Your task to perform on an android device: turn off translation in the chrome app Image 0: 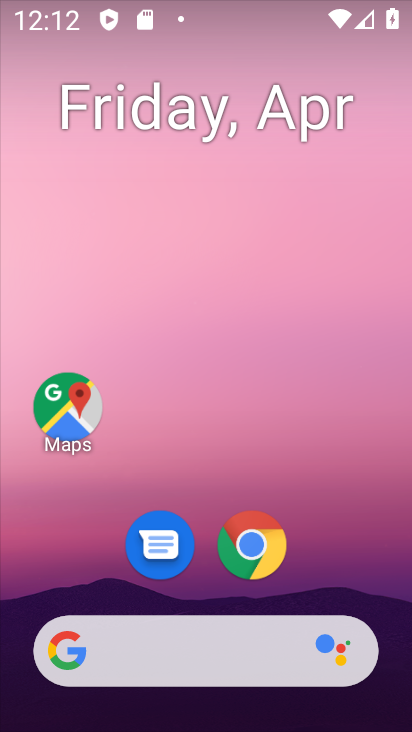
Step 0: click (267, 556)
Your task to perform on an android device: turn off translation in the chrome app Image 1: 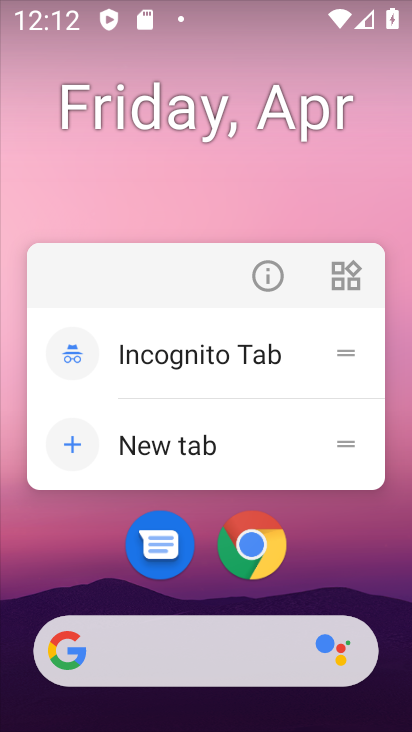
Step 1: click (264, 559)
Your task to perform on an android device: turn off translation in the chrome app Image 2: 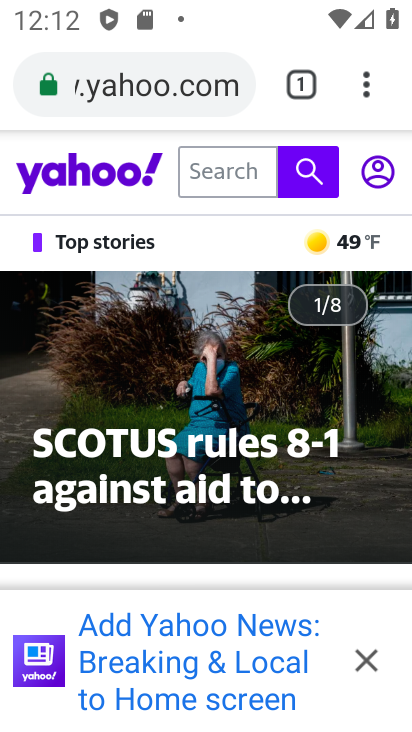
Step 2: click (362, 83)
Your task to perform on an android device: turn off translation in the chrome app Image 3: 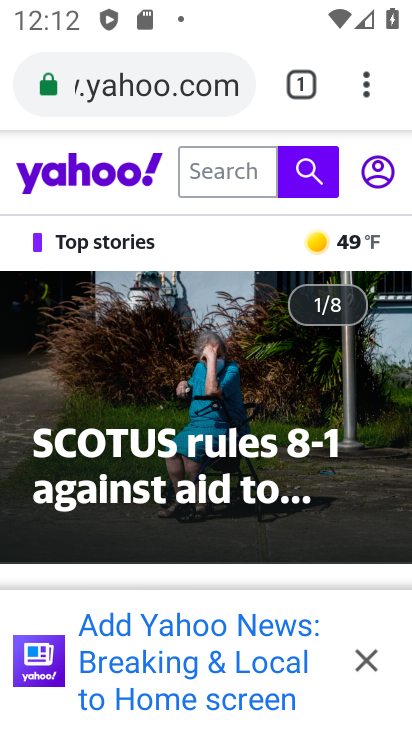
Step 3: click (365, 79)
Your task to perform on an android device: turn off translation in the chrome app Image 4: 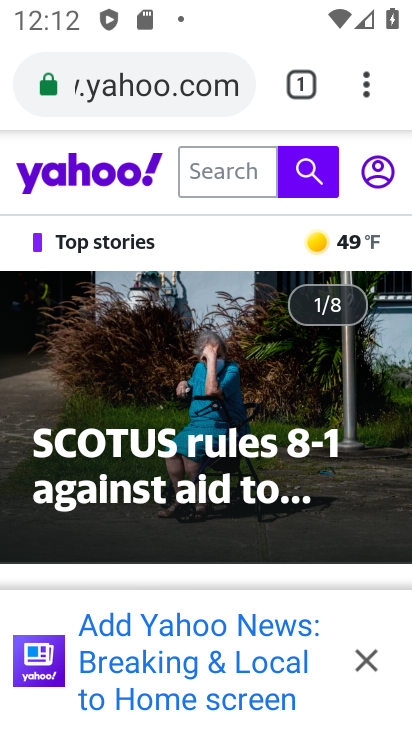
Step 4: click (368, 81)
Your task to perform on an android device: turn off translation in the chrome app Image 5: 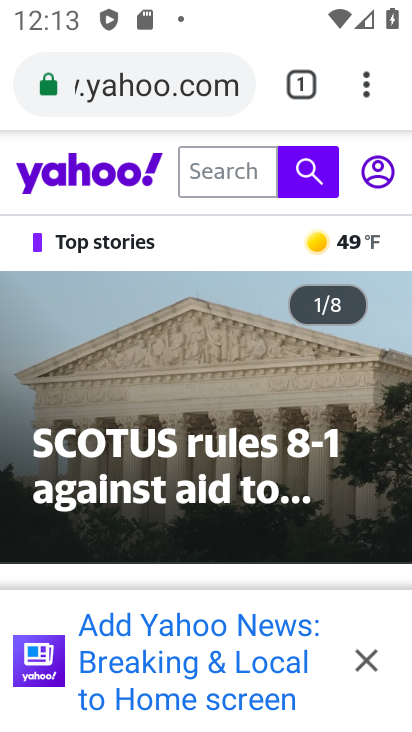
Step 5: click (366, 82)
Your task to perform on an android device: turn off translation in the chrome app Image 6: 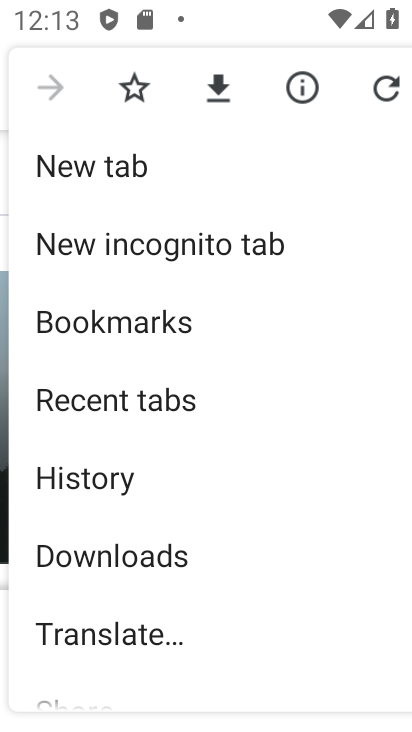
Step 6: drag from (138, 604) to (115, 214)
Your task to perform on an android device: turn off translation in the chrome app Image 7: 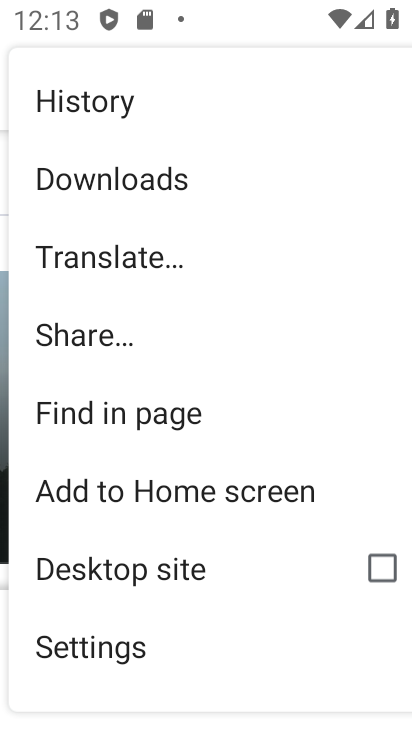
Step 7: click (146, 638)
Your task to perform on an android device: turn off translation in the chrome app Image 8: 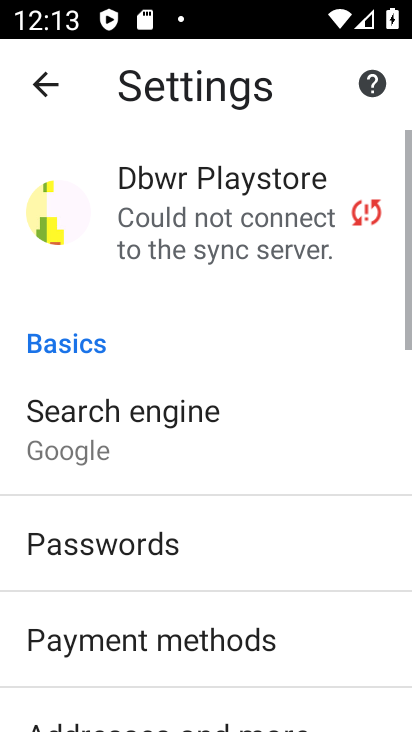
Step 8: drag from (305, 628) to (259, 159)
Your task to perform on an android device: turn off translation in the chrome app Image 9: 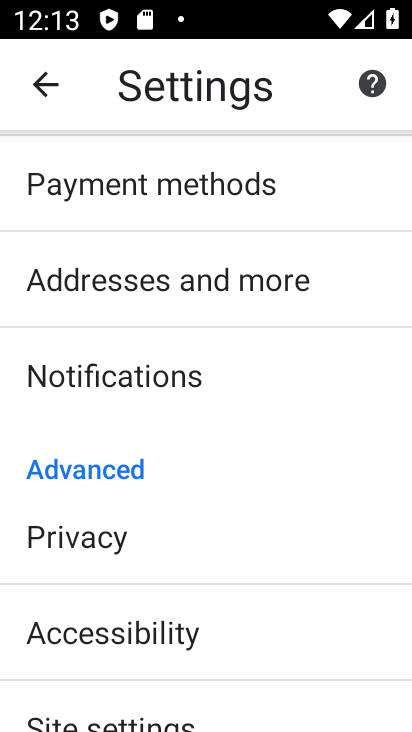
Step 9: drag from (223, 663) to (222, 331)
Your task to perform on an android device: turn off translation in the chrome app Image 10: 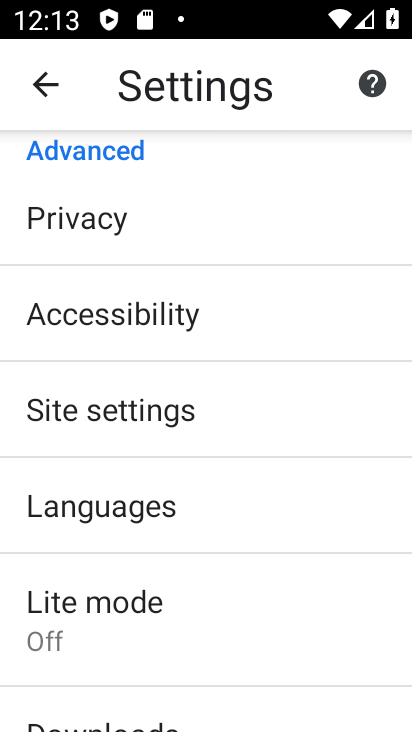
Step 10: click (169, 508)
Your task to perform on an android device: turn off translation in the chrome app Image 11: 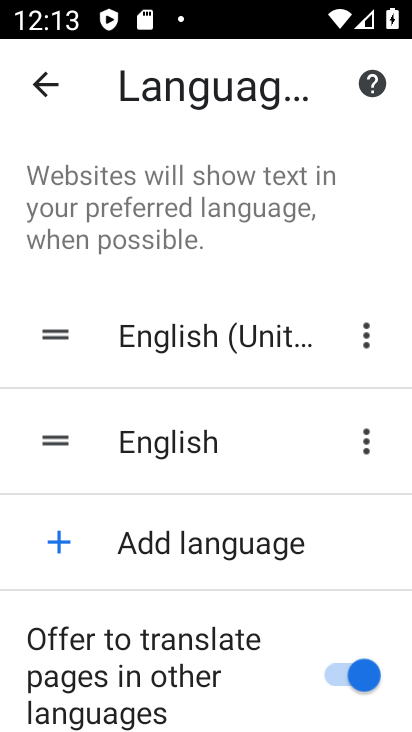
Step 11: click (341, 675)
Your task to perform on an android device: turn off translation in the chrome app Image 12: 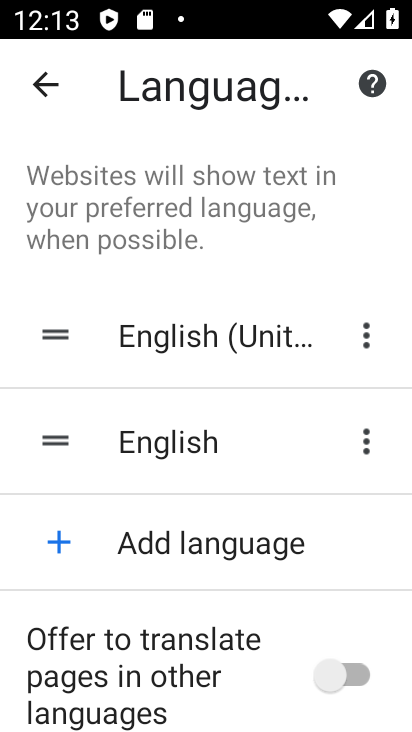
Step 12: task complete